Your task to perform on an android device: add a contact Image 0: 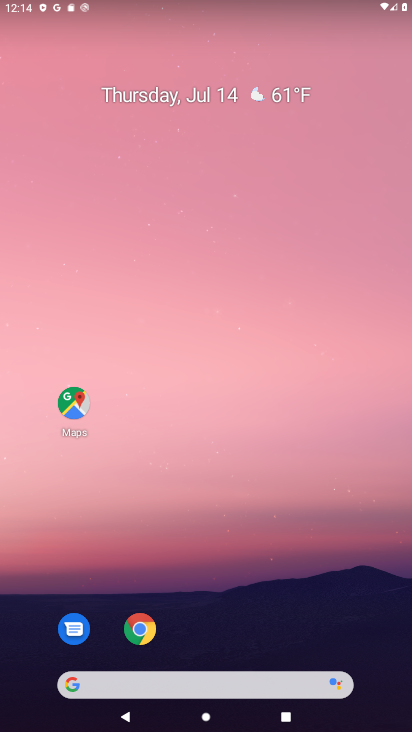
Step 0: drag from (220, 646) to (155, 249)
Your task to perform on an android device: add a contact Image 1: 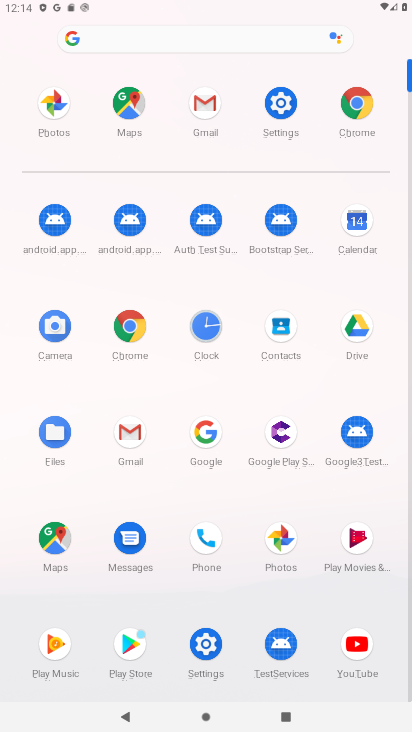
Step 1: click (288, 329)
Your task to perform on an android device: add a contact Image 2: 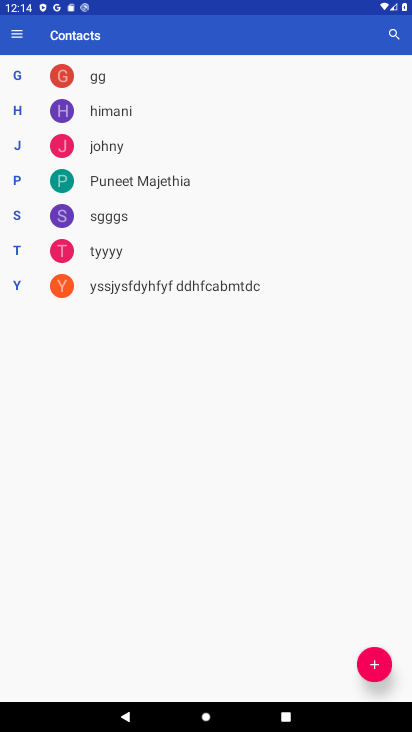
Step 2: click (378, 655)
Your task to perform on an android device: add a contact Image 3: 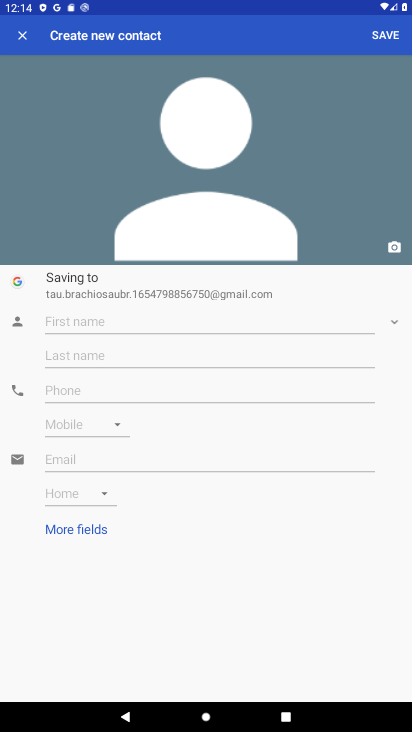
Step 3: click (151, 326)
Your task to perform on an android device: add a contact Image 4: 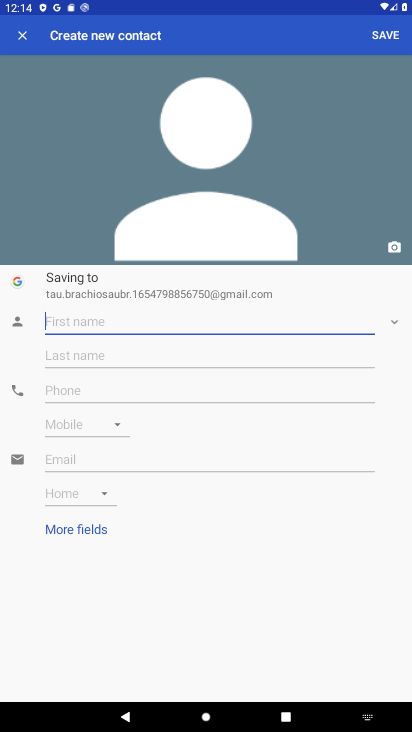
Step 4: type "iuhygfcx"
Your task to perform on an android device: add a contact Image 5: 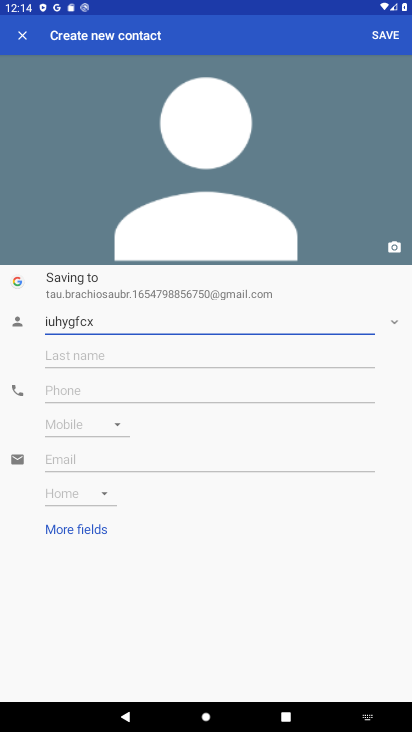
Step 5: click (66, 376)
Your task to perform on an android device: add a contact Image 6: 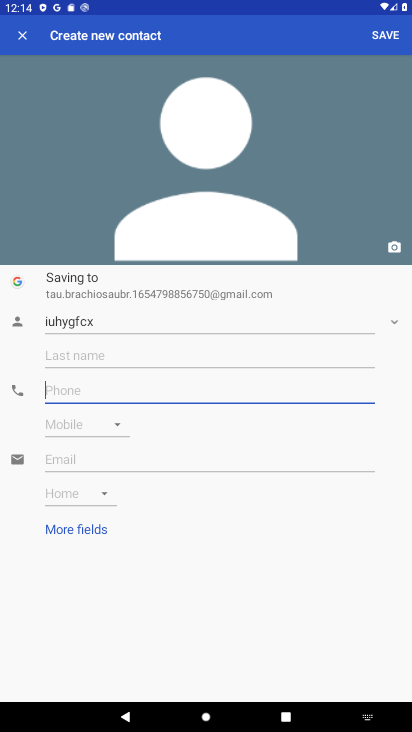
Step 6: type "23456789"
Your task to perform on an android device: add a contact Image 7: 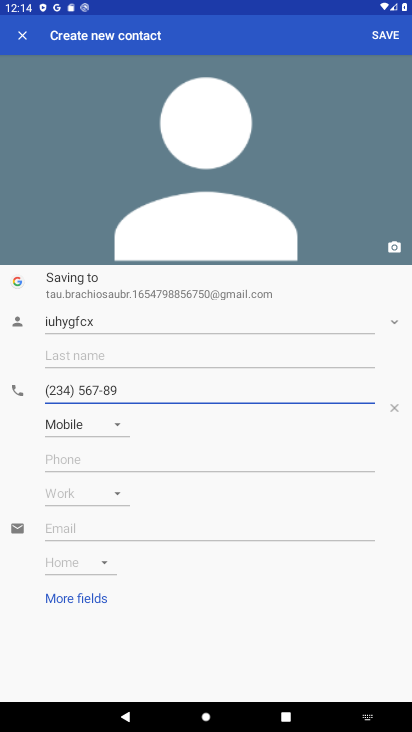
Step 7: click (388, 30)
Your task to perform on an android device: add a contact Image 8: 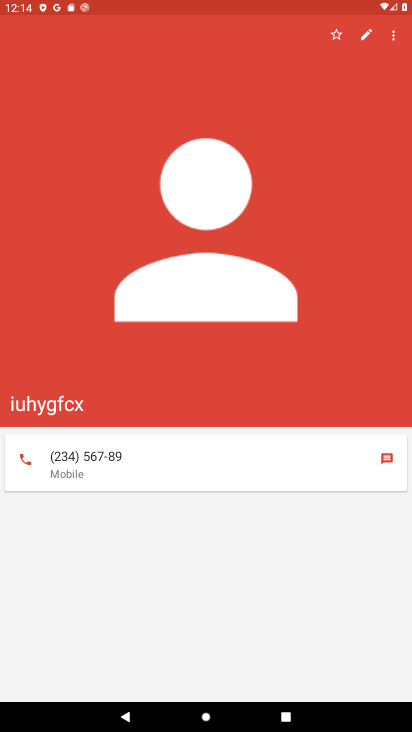
Step 8: task complete